Your task to perform on an android device: delete location history Image 0: 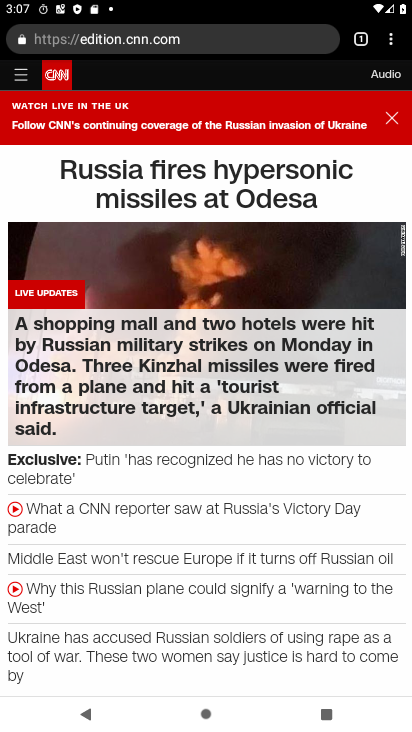
Step 0: press home button
Your task to perform on an android device: delete location history Image 1: 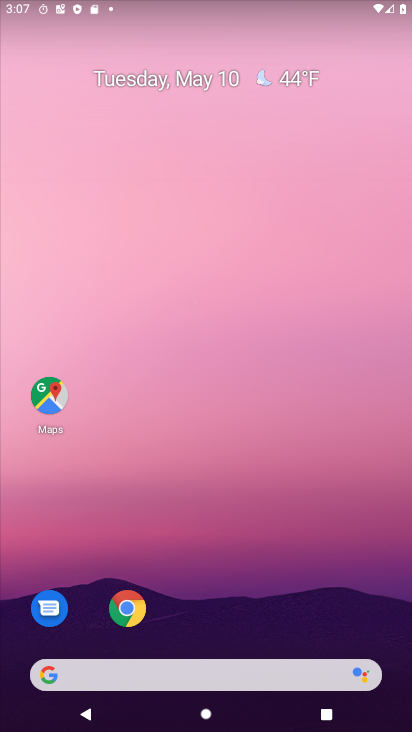
Step 1: click (48, 401)
Your task to perform on an android device: delete location history Image 2: 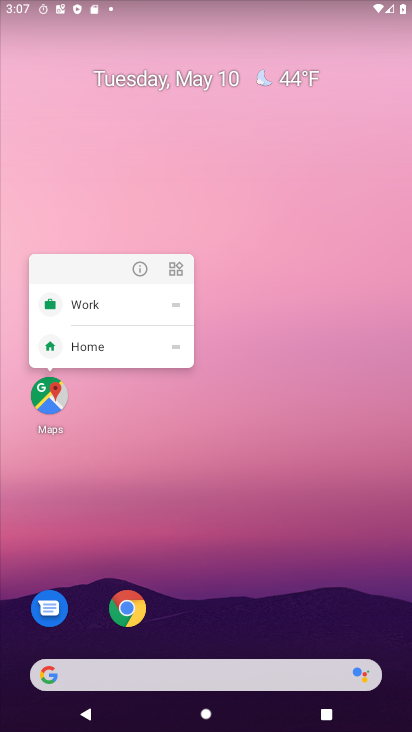
Step 2: click (48, 401)
Your task to perform on an android device: delete location history Image 3: 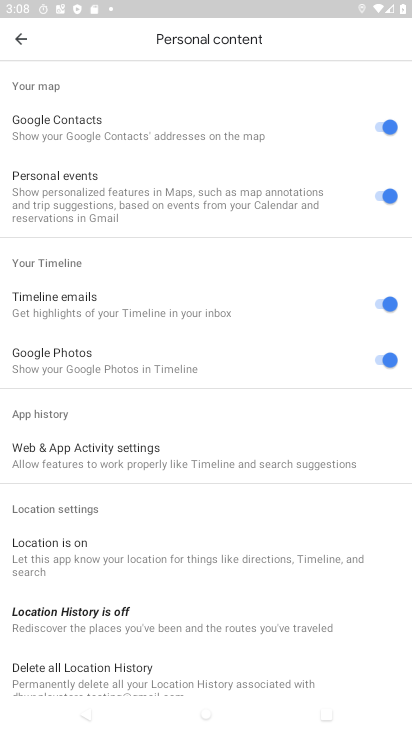
Step 3: click (100, 674)
Your task to perform on an android device: delete location history Image 4: 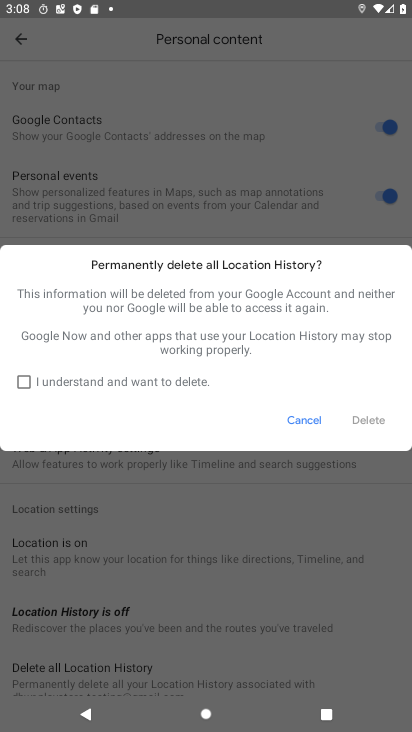
Step 4: click (23, 376)
Your task to perform on an android device: delete location history Image 5: 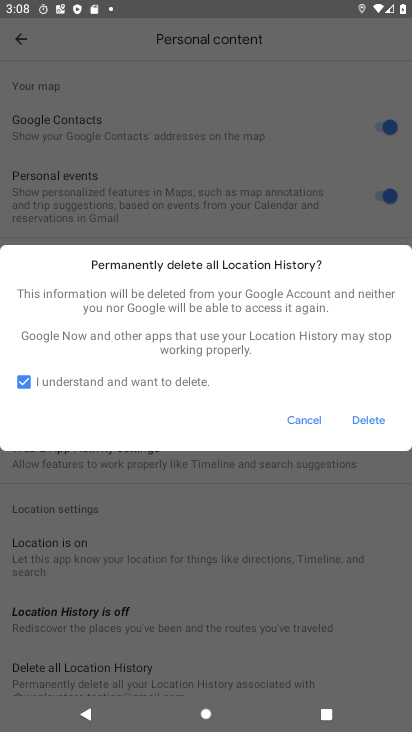
Step 5: click (364, 419)
Your task to perform on an android device: delete location history Image 6: 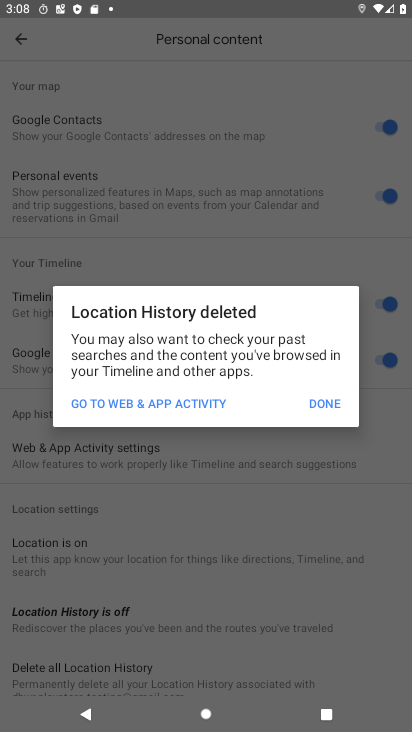
Step 6: click (323, 406)
Your task to perform on an android device: delete location history Image 7: 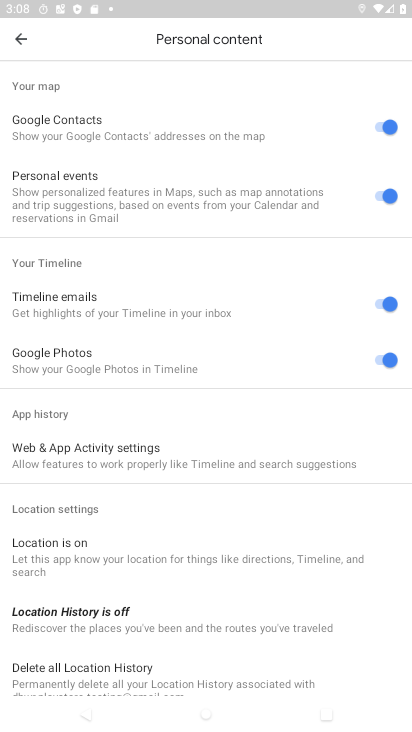
Step 7: task complete